Your task to perform on an android device: move an email to a new category in the gmail app Image 0: 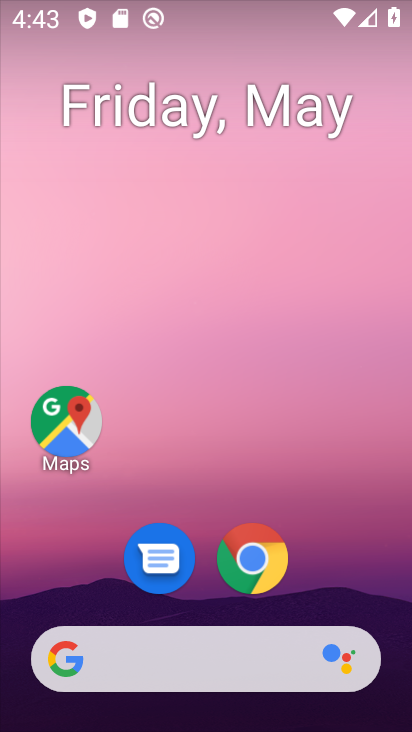
Step 0: drag from (368, 604) to (221, 194)
Your task to perform on an android device: move an email to a new category in the gmail app Image 1: 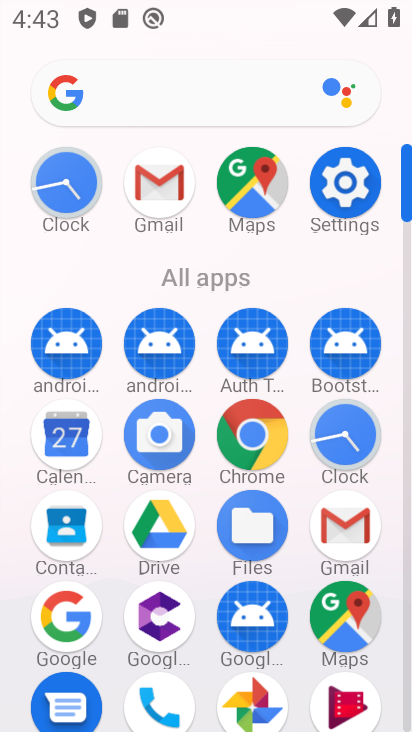
Step 1: click (360, 539)
Your task to perform on an android device: move an email to a new category in the gmail app Image 2: 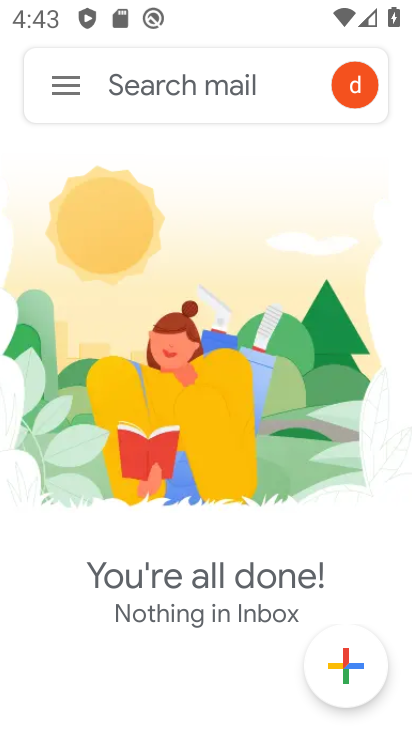
Step 2: click (71, 75)
Your task to perform on an android device: move an email to a new category in the gmail app Image 3: 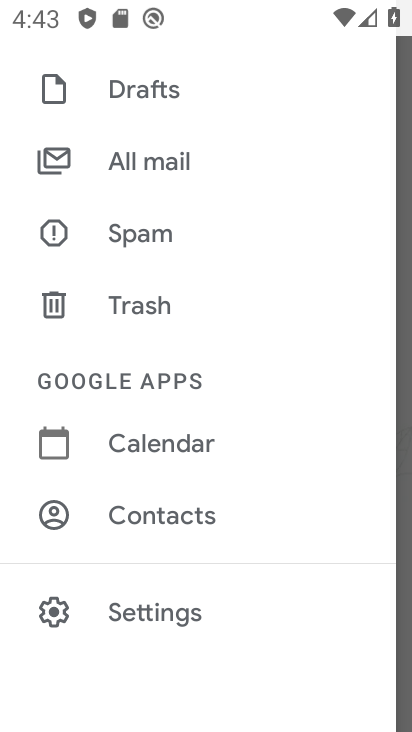
Step 3: click (191, 181)
Your task to perform on an android device: move an email to a new category in the gmail app Image 4: 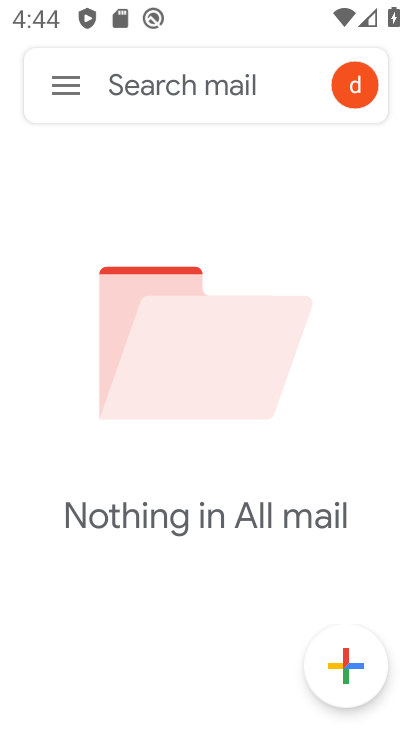
Step 4: task complete